Your task to perform on an android device: Open ESPN.com Image 0: 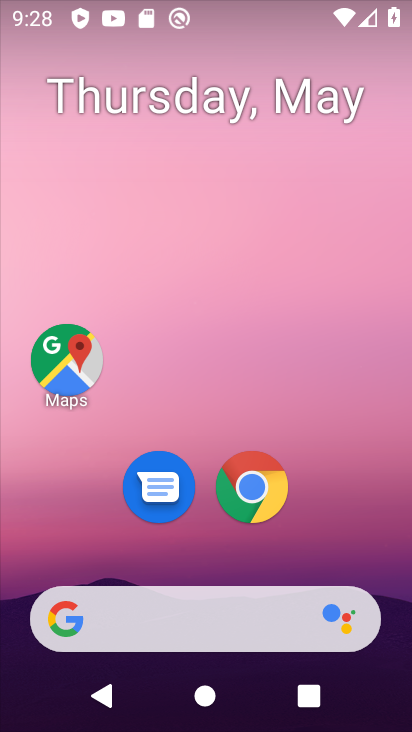
Step 0: click (239, 487)
Your task to perform on an android device: Open ESPN.com Image 1: 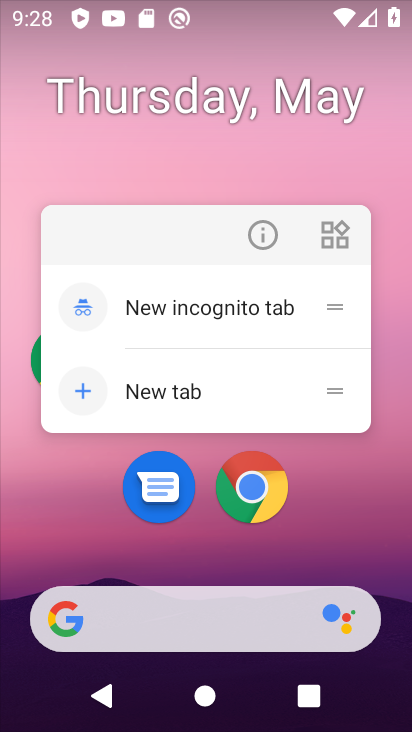
Step 1: click (254, 484)
Your task to perform on an android device: Open ESPN.com Image 2: 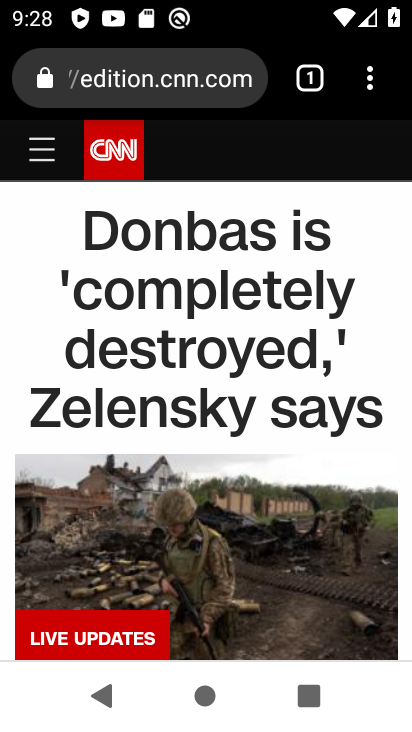
Step 2: click (311, 90)
Your task to perform on an android device: Open ESPN.com Image 3: 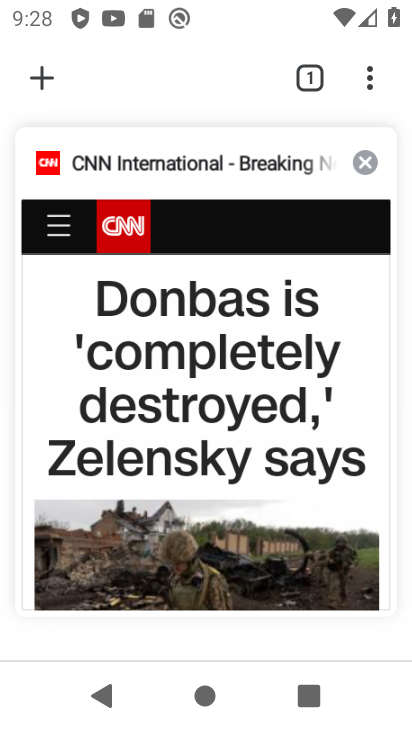
Step 3: click (21, 69)
Your task to perform on an android device: Open ESPN.com Image 4: 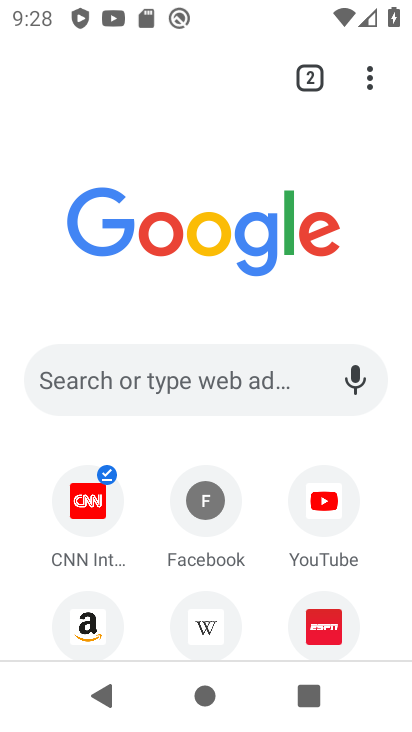
Step 4: click (314, 623)
Your task to perform on an android device: Open ESPN.com Image 5: 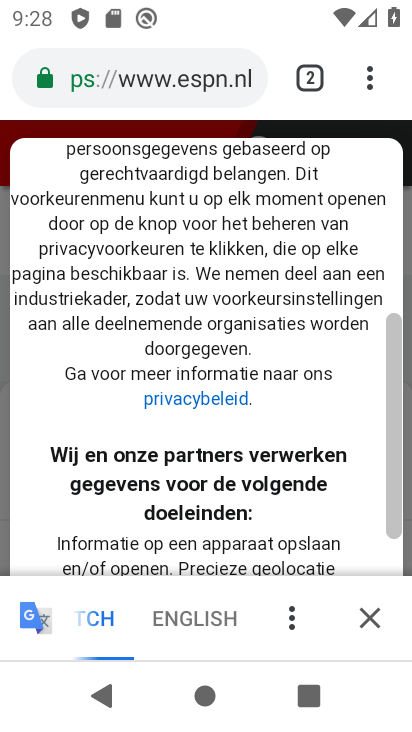
Step 5: task complete